Your task to perform on an android device: Clear all items from cart on ebay. Image 0: 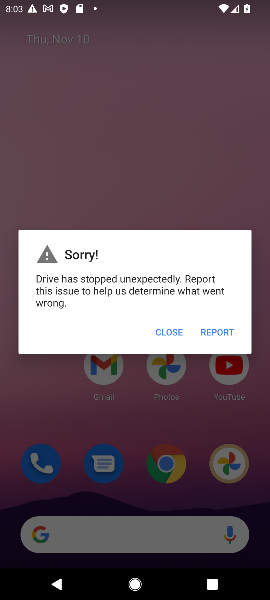
Step 0: press home button
Your task to perform on an android device: Clear all items from cart on ebay. Image 1: 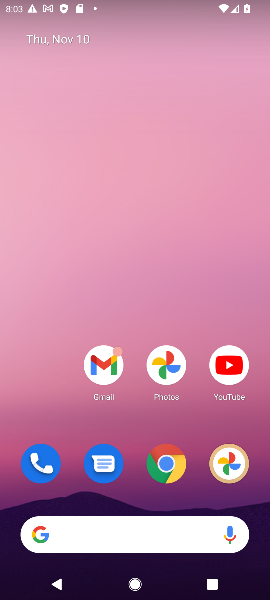
Step 1: click (166, 460)
Your task to perform on an android device: Clear all items from cart on ebay. Image 2: 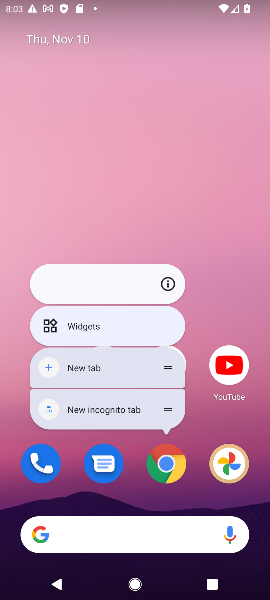
Step 2: click (166, 461)
Your task to perform on an android device: Clear all items from cart on ebay. Image 3: 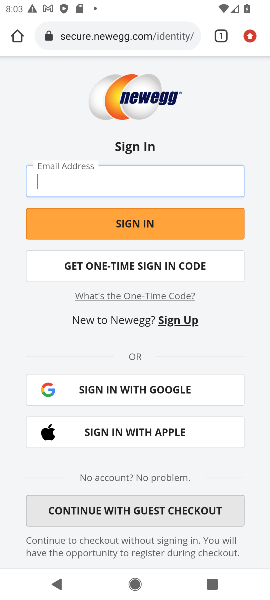
Step 3: press back button
Your task to perform on an android device: Clear all items from cart on ebay. Image 4: 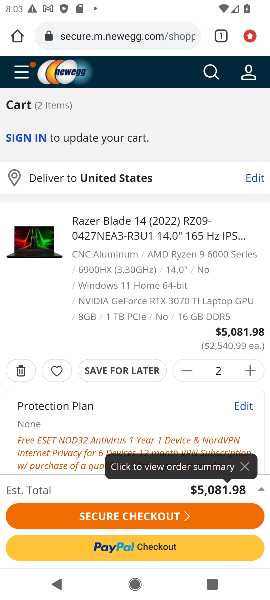
Step 4: click (115, 38)
Your task to perform on an android device: Clear all items from cart on ebay. Image 5: 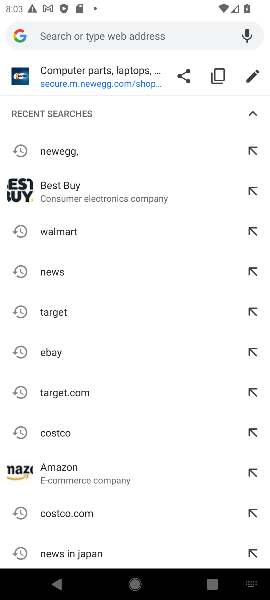
Step 5: click (46, 352)
Your task to perform on an android device: Clear all items from cart on ebay. Image 6: 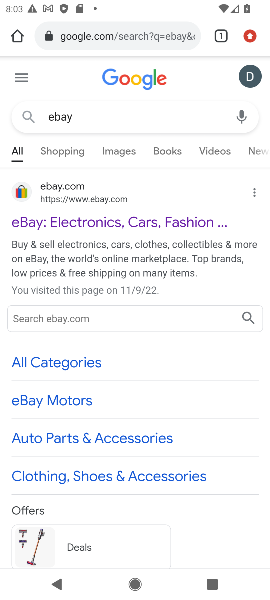
Step 6: click (75, 218)
Your task to perform on an android device: Clear all items from cart on ebay. Image 7: 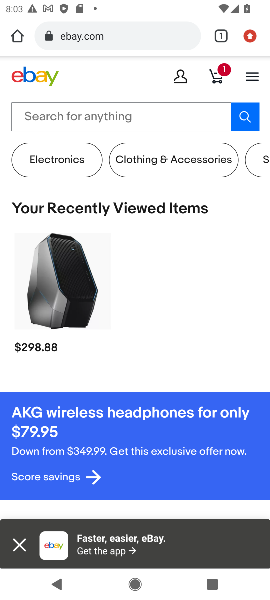
Step 7: click (219, 72)
Your task to perform on an android device: Clear all items from cart on ebay. Image 8: 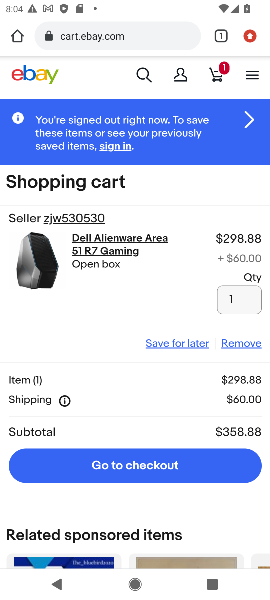
Step 8: click (234, 343)
Your task to perform on an android device: Clear all items from cart on ebay. Image 9: 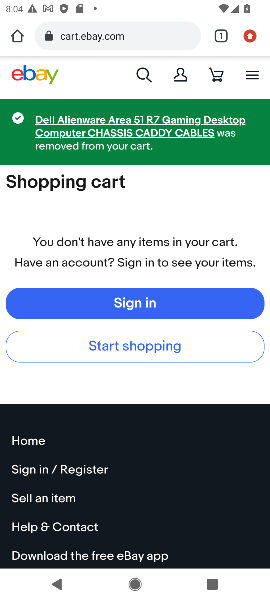
Step 9: task complete